Your task to perform on an android device: turn off picture-in-picture Image 0: 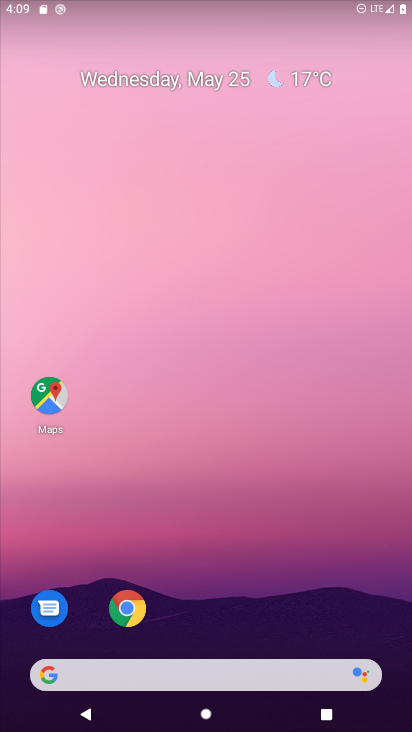
Step 0: drag from (385, 627) to (270, 19)
Your task to perform on an android device: turn off picture-in-picture Image 1: 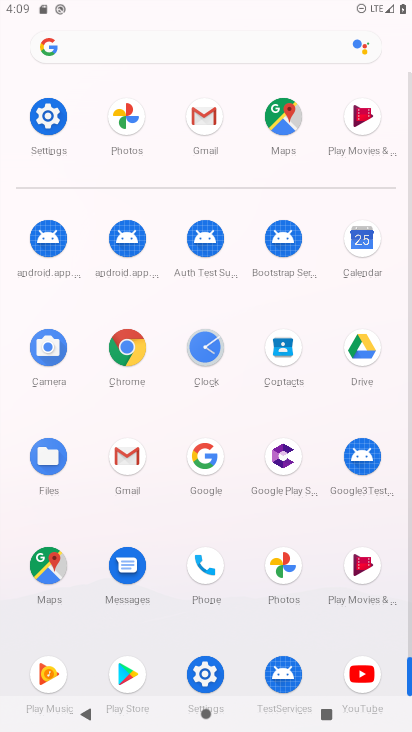
Step 1: click (203, 680)
Your task to perform on an android device: turn off picture-in-picture Image 2: 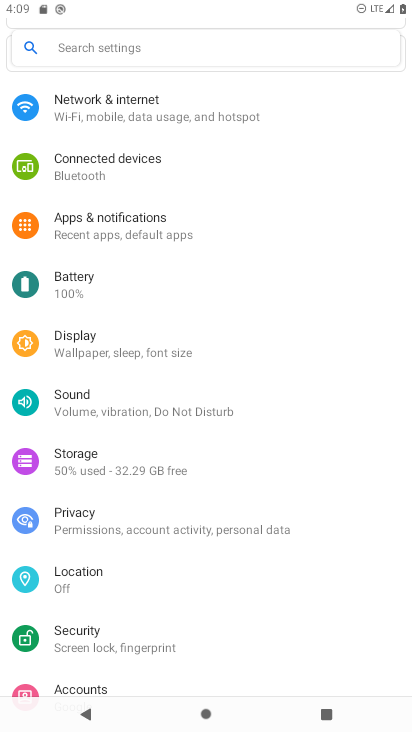
Step 2: click (105, 216)
Your task to perform on an android device: turn off picture-in-picture Image 3: 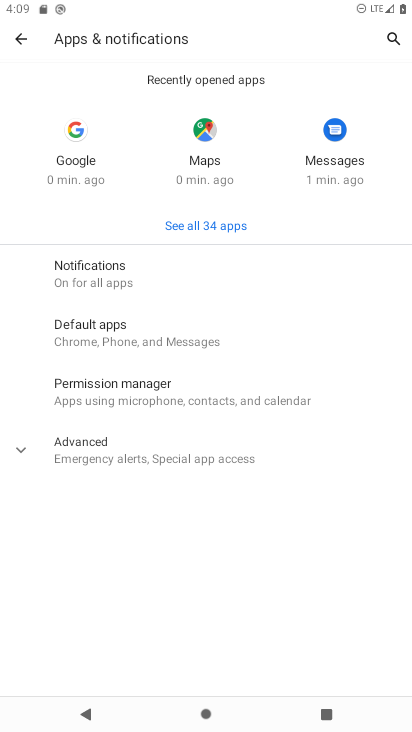
Step 3: click (34, 447)
Your task to perform on an android device: turn off picture-in-picture Image 4: 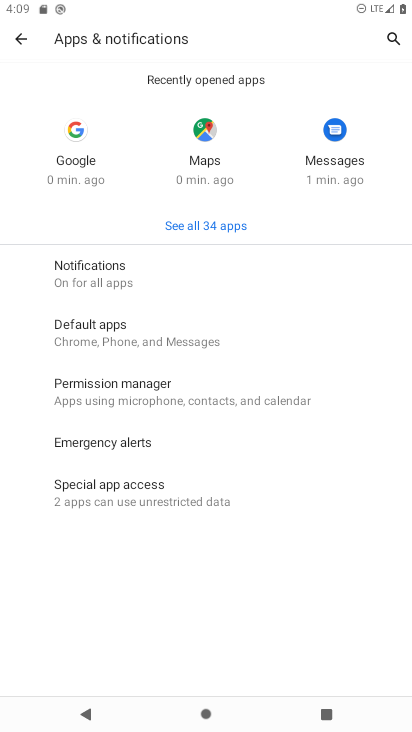
Step 4: click (111, 487)
Your task to perform on an android device: turn off picture-in-picture Image 5: 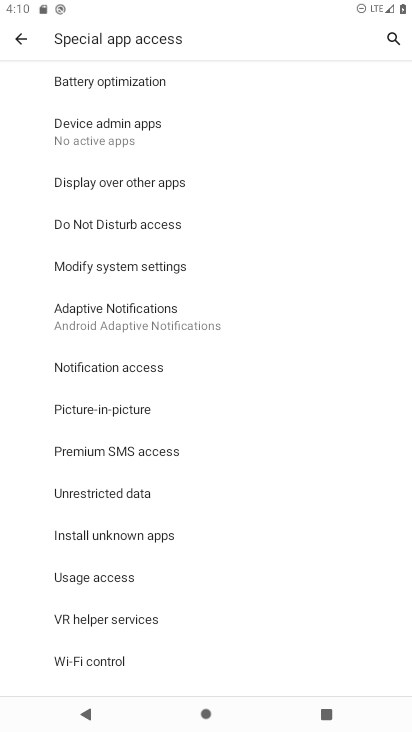
Step 5: click (88, 403)
Your task to perform on an android device: turn off picture-in-picture Image 6: 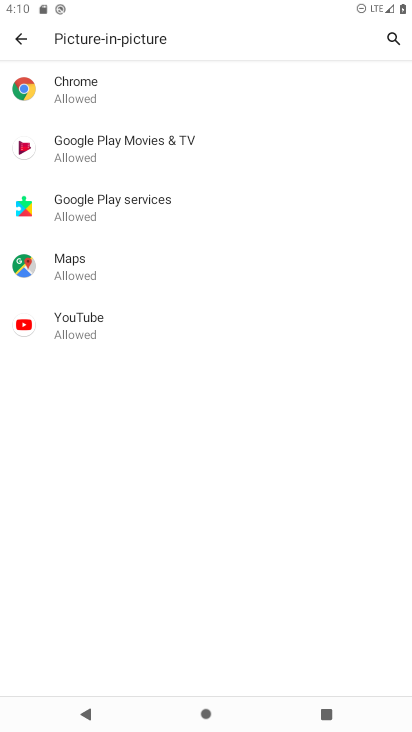
Step 6: click (89, 314)
Your task to perform on an android device: turn off picture-in-picture Image 7: 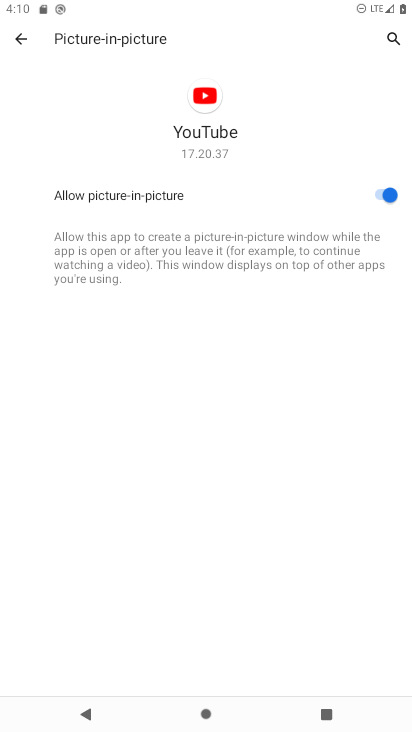
Step 7: click (376, 187)
Your task to perform on an android device: turn off picture-in-picture Image 8: 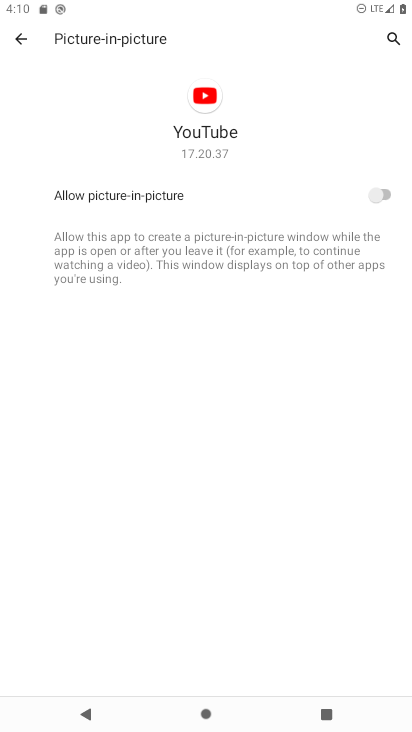
Step 8: task complete